Your task to perform on an android device: star an email in the gmail app Image 0: 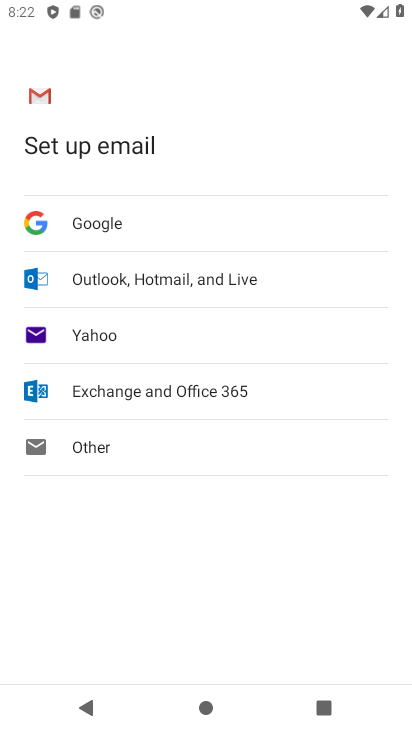
Step 0: press home button
Your task to perform on an android device: star an email in the gmail app Image 1: 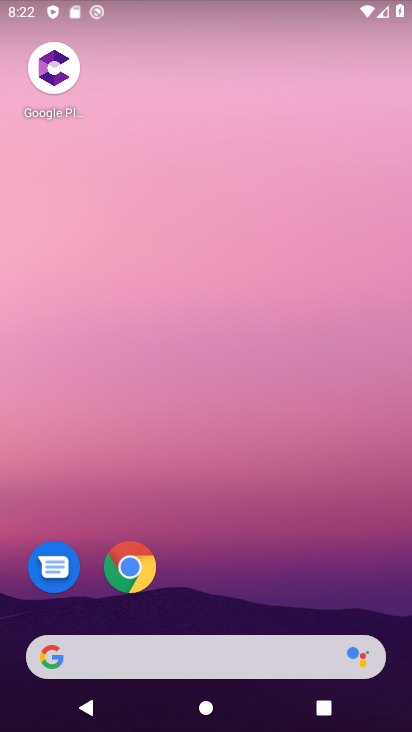
Step 1: drag from (253, 412) to (199, 4)
Your task to perform on an android device: star an email in the gmail app Image 2: 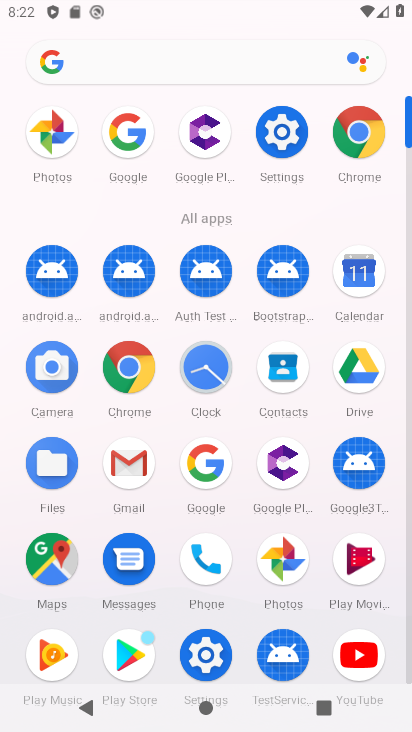
Step 2: click (139, 476)
Your task to perform on an android device: star an email in the gmail app Image 3: 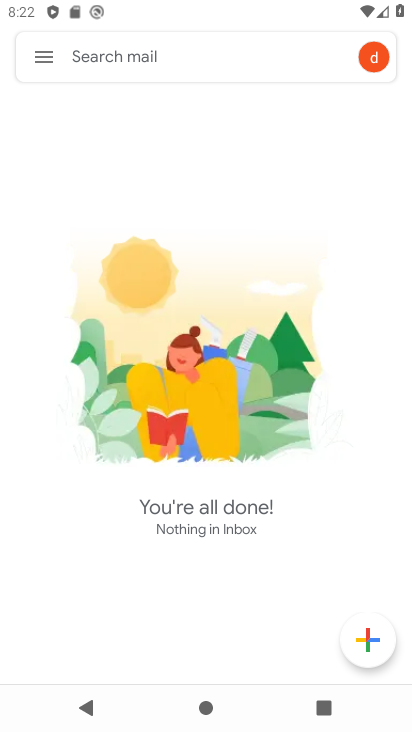
Step 3: click (44, 50)
Your task to perform on an android device: star an email in the gmail app Image 4: 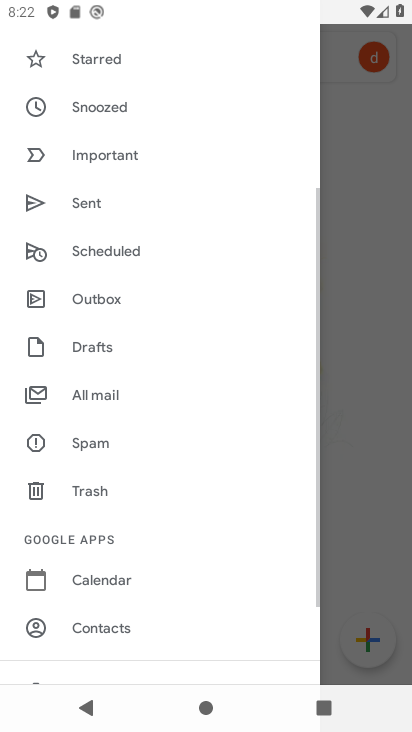
Step 4: click (132, 389)
Your task to perform on an android device: star an email in the gmail app Image 5: 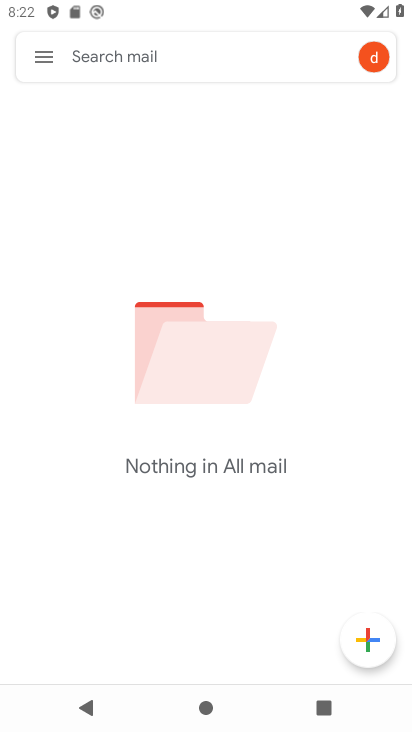
Step 5: task complete